Your task to perform on an android device: Open Youtube and go to "Your channel" Image 0: 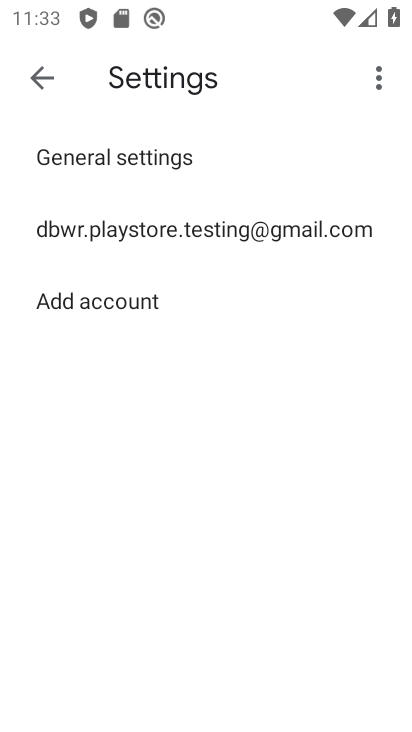
Step 0: press home button
Your task to perform on an android device: Open Youtube and go to "Your channel" Image 1: 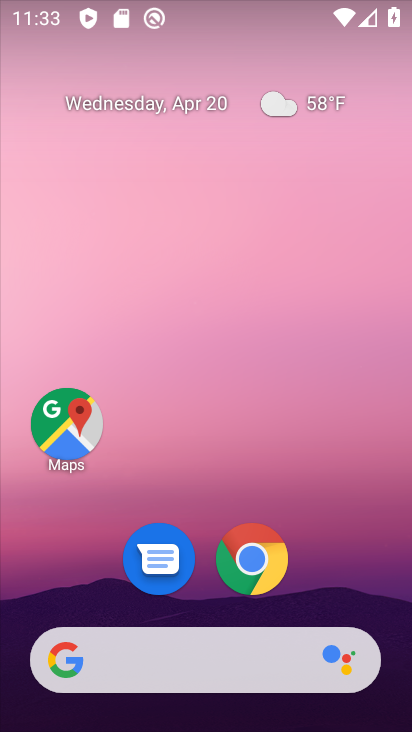
Step 1: drag from (308, 559) to (231, 67)
Your task to perform on an android device: Open Youtube and go to "Your channel" Image 2: 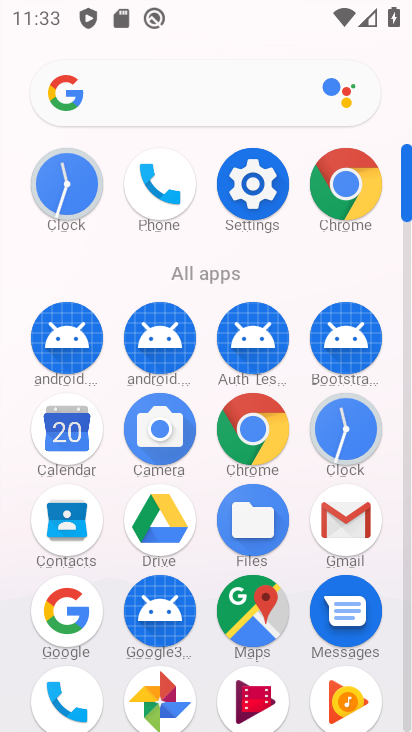
Step 2: drag from (297, 661) to (271, 375)
Your task to perform on an android device: Open Youtube and go to "Your channel" Image 3: 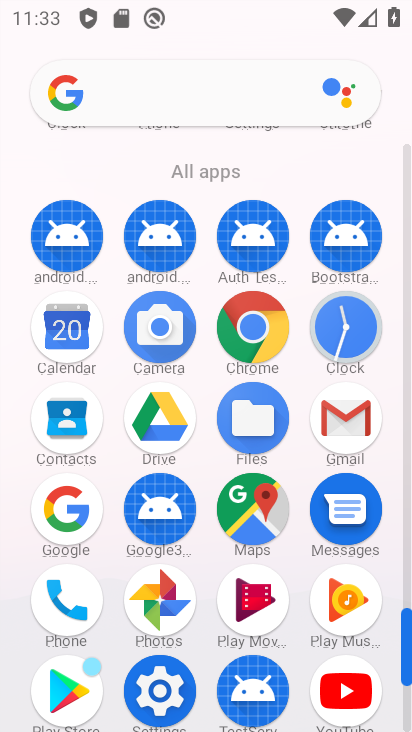
Step 3: drag from (201, 659) to (202, 341)
Your task to perform on an android device: Open Youtube and go to "Your channel" Image 4: 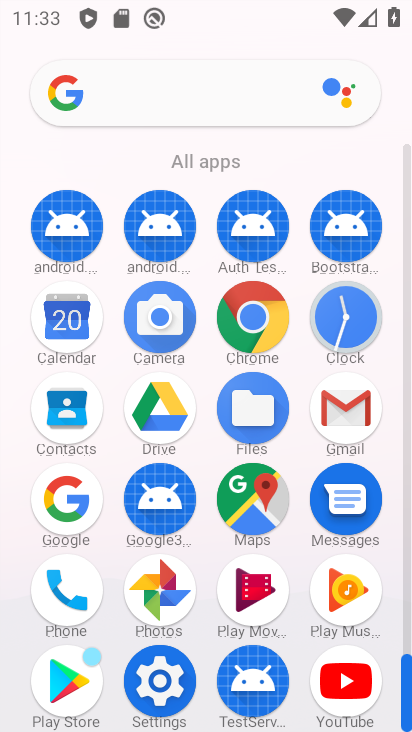
Step 4: click (336, 694)
Your task to perform on an android device: Open Youtube and go to "Your channel" Image 5: 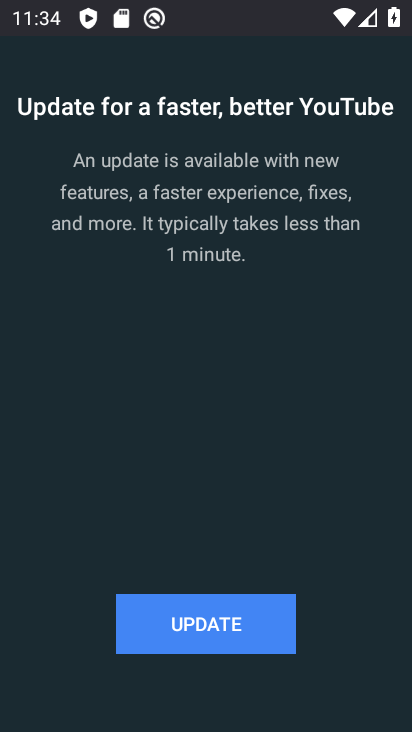
Step 5: click (224, 617)
Your task to perform on an android device: Open Youtube and go to "Your channel" Image 6: 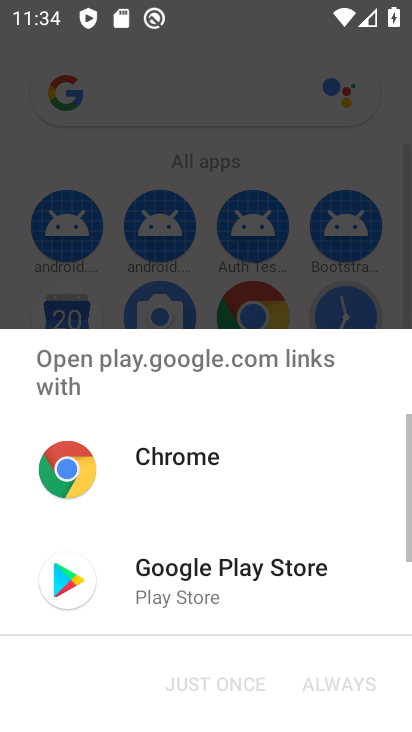
Step 6: click (162, 568)
Your task to perform on an android device: Open Youtube and go to "Your channel" Image 7: 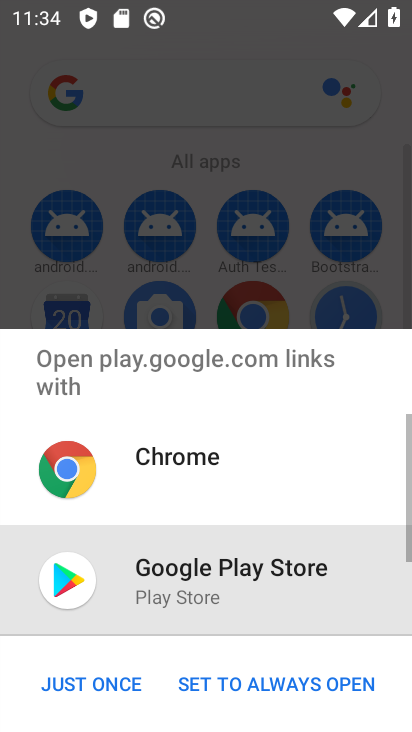
Step 7: click (122, 675)
Your task to perform on an android device: Open Youtube and go to "Your channel" Image 8: 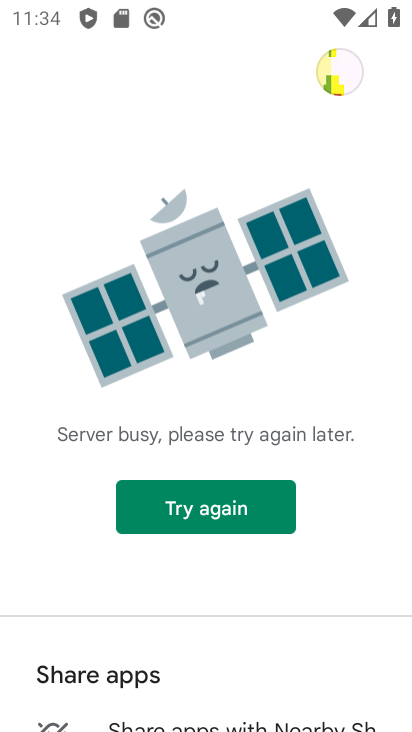
Step 8: task complete